Your task to perform on an android device: toggle javascript in the chrome app Image 0: 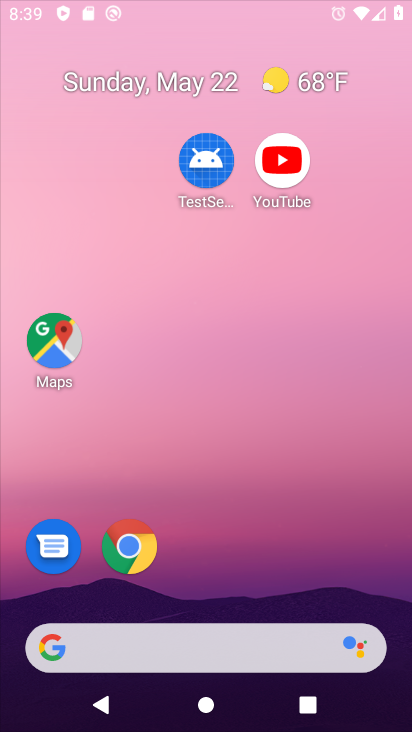
Step 0: click (411, 664)
Your task to perform on an android device: toggle javascript in the chrome app Image 1: 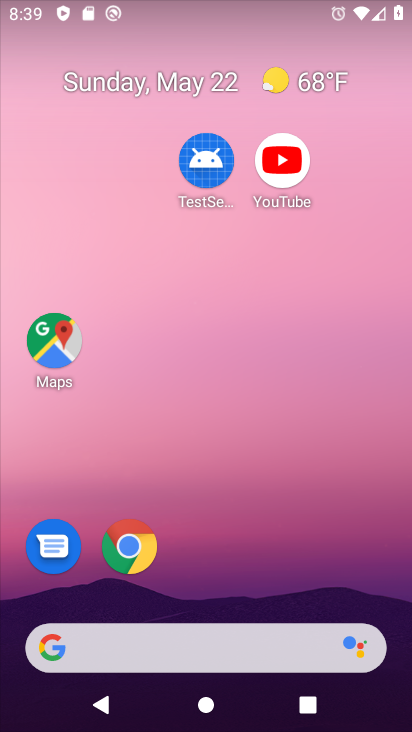
Step 1: drag from (237, 722) to (187, 164)
Your task to perform on an android device: toggle javascript in the chrome app Image 2: 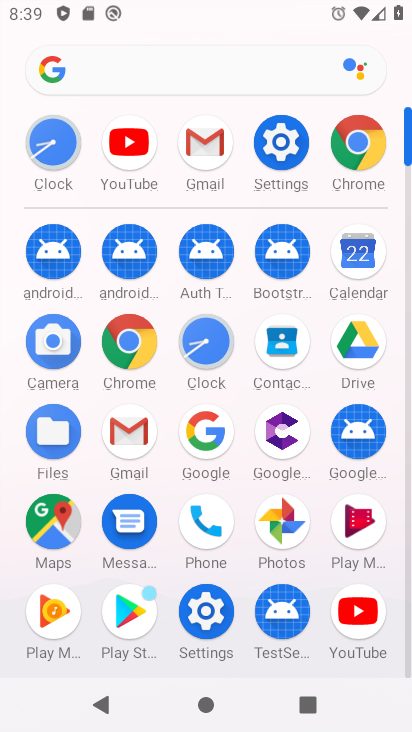
Step 2: click (345, 143)
Your task to perform on an android device: toggle javascript in the chrome app Image 3: 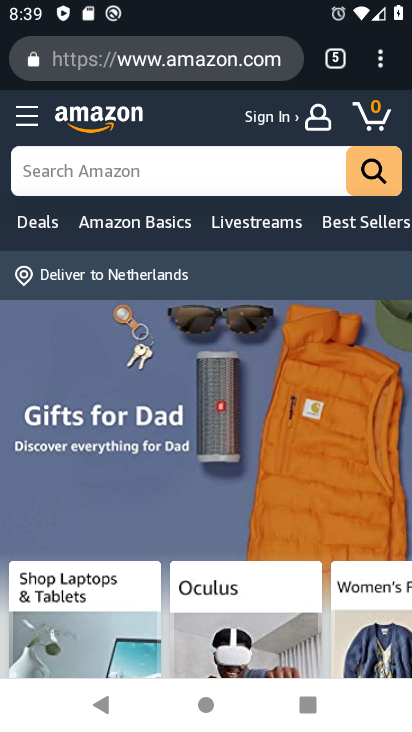
Step 3: drag from (382, 60) to (179, 601)
Your task to perform on an android device: toggle javascript in the chrome app Image 4: 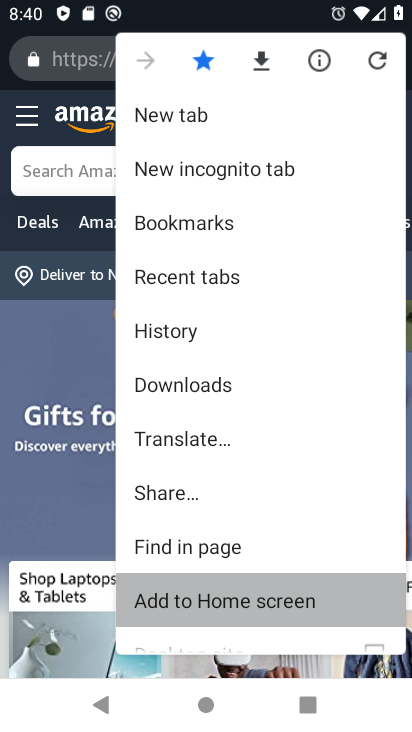
Step 4: drag from (186, 621) to (202, 538)
Your task to perform on an android device: toggle javascript in the chrome app Image 5: 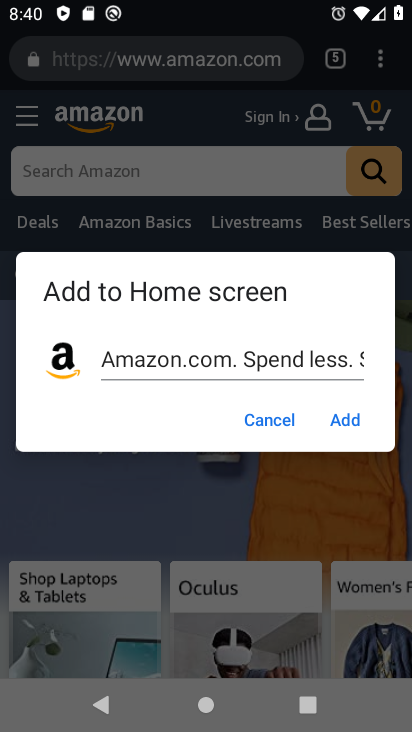
Step 5: click (256, 423)
Your task to perform on an android device: toggle javascript in the chrome app Image 6: 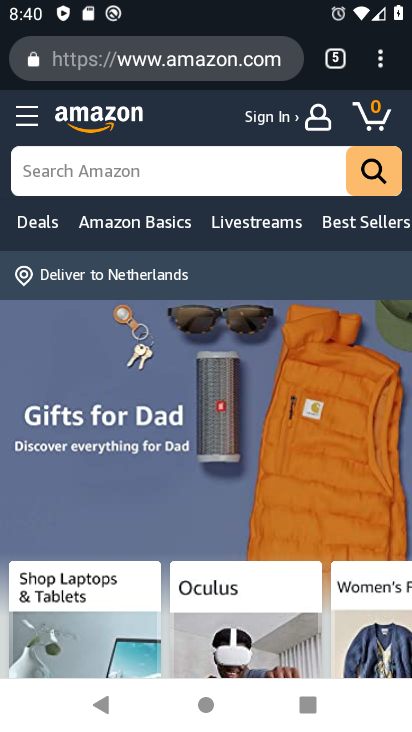
Step 6: click (374, 61)
Your task to perform on an android device: toggle javascript in the chrome app Image 7: 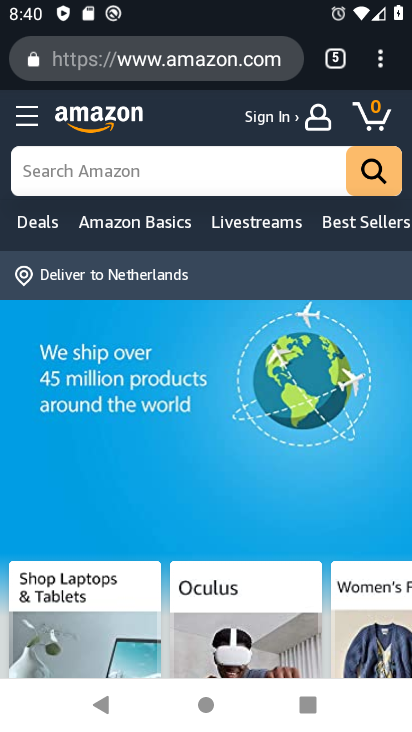
Step 7: click (385, 59)
Your task to perform on an android device: toggle javascript in the chrome app Image 8: 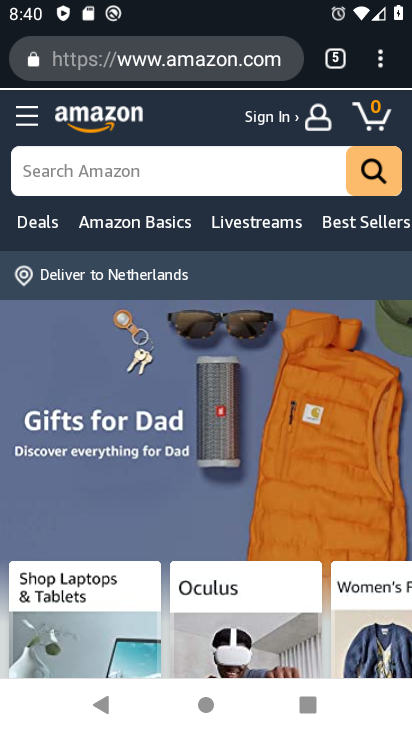
Step 8: drag from (382, 63) to (161, 562)
Your task to perform on an android device: toggle javascript in the chrome app Image 9: 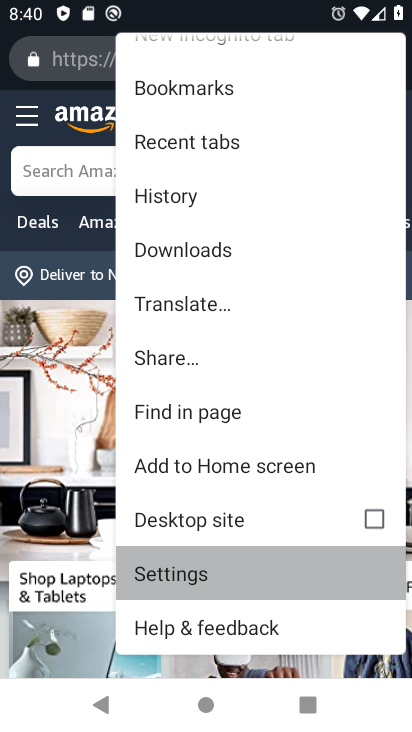
Step 9: click (163, 558)
Your task to perform on an android device: toggle javascript in the chrome app Image 10: 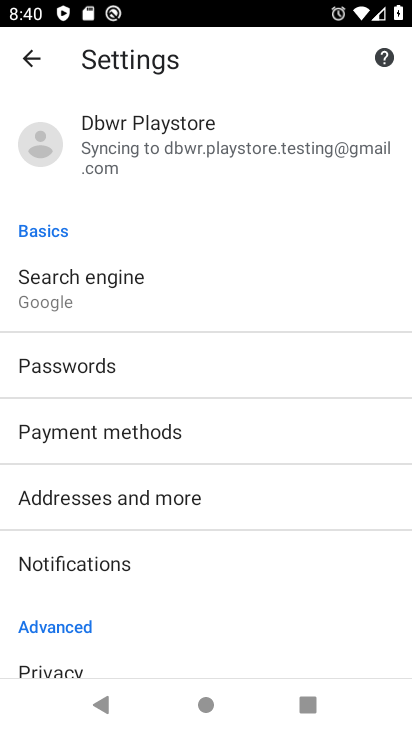
Step 10: drag from (176, 496) to (98, 160)
Your task to perform on an android device: toggle javascript in the chrome app Image 11: 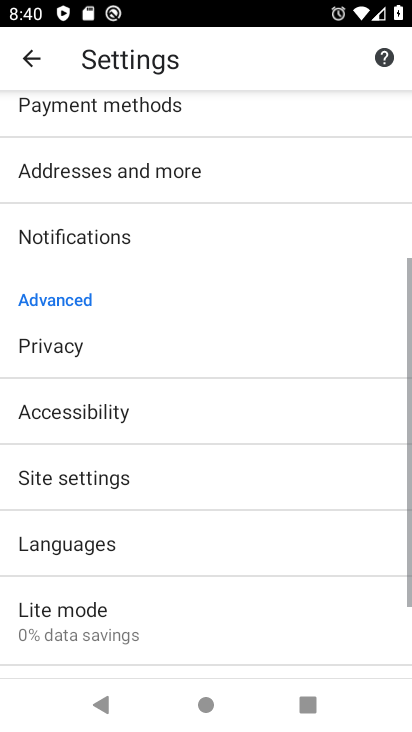
Step 11: drag from (116, 345) to (116, 155)
Your task to perform on an android device: toggle javascript in the chrome app Image 12: 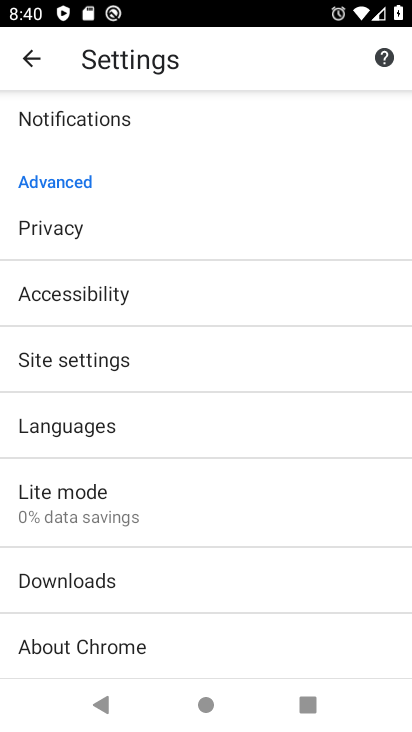
Step 12: click (60, 362)
Your task to perform on an android device: toggle javascript in the chrome app Image 13: 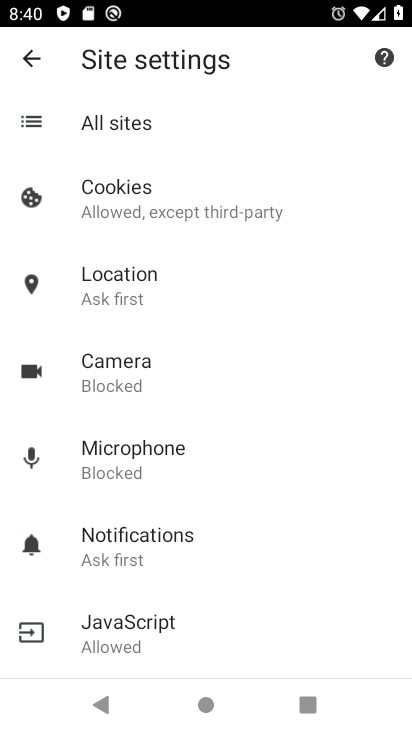
Step 13: click (105, 637)
Your task to perform on an android device: toggle javascript in the chrome app Image 14: 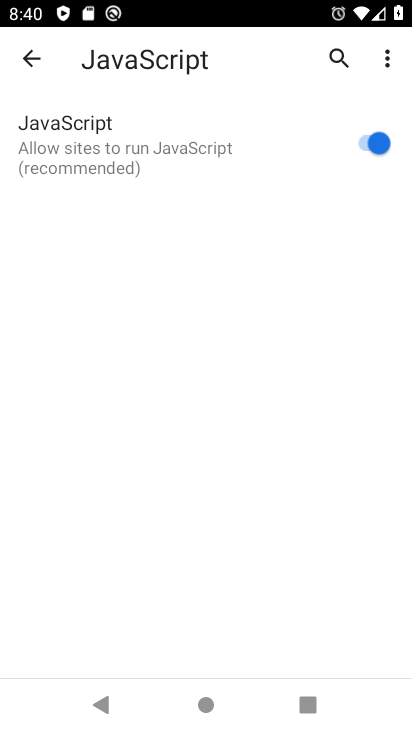
Step 14: click (377, 147)
Your task to perform on an android device: toggle javascript in the chrome app Image 15: 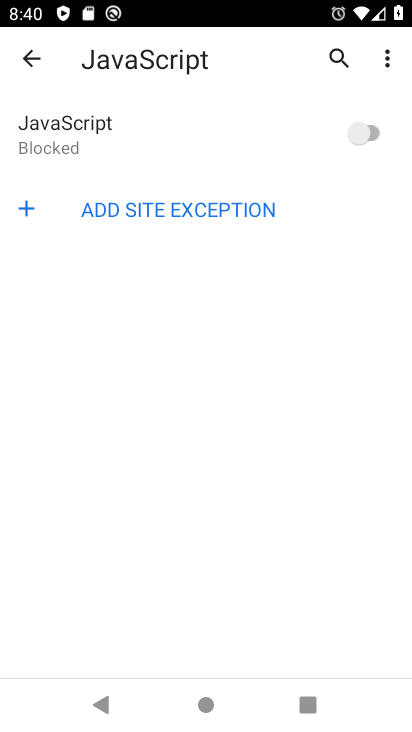
Step 15: task complete